Your task to perform on an android device: delete browsing data in the chrome app Image 0: 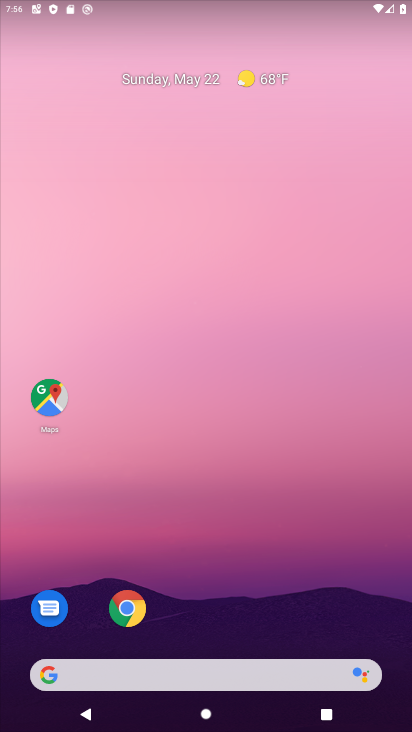
Step 0: click (122, 612)
Your task to perform on an android device: delete browsing data in the chrome app Image 1: 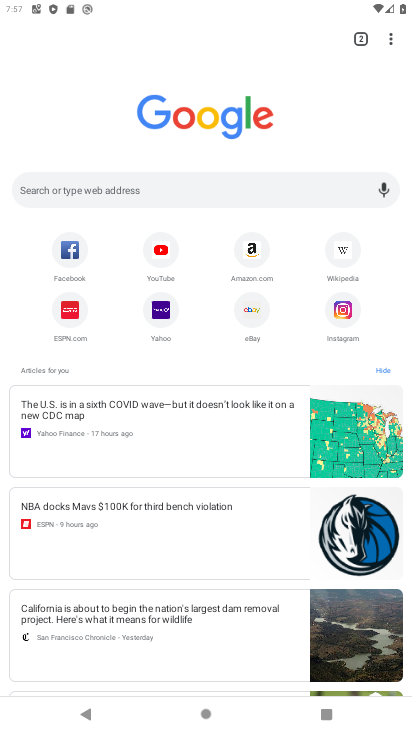
Step 1: click (390, 41)
Your task to perform on an android device: delete browsing data in the chrome app Image 2: 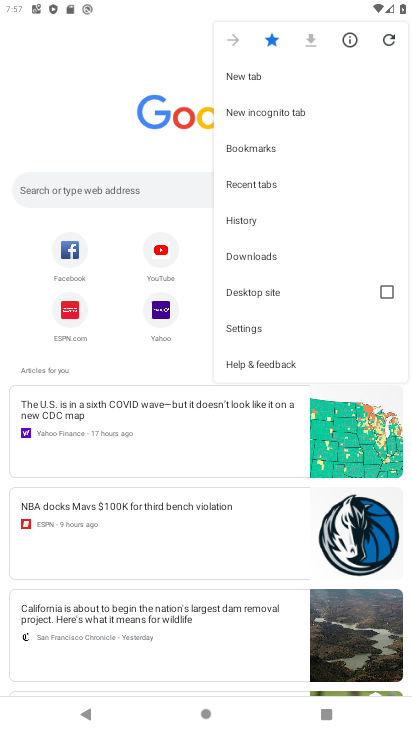
Step 2: click (245, 220)
Your task to perform on an android device: delete browsing data in the chrome app Image 3: 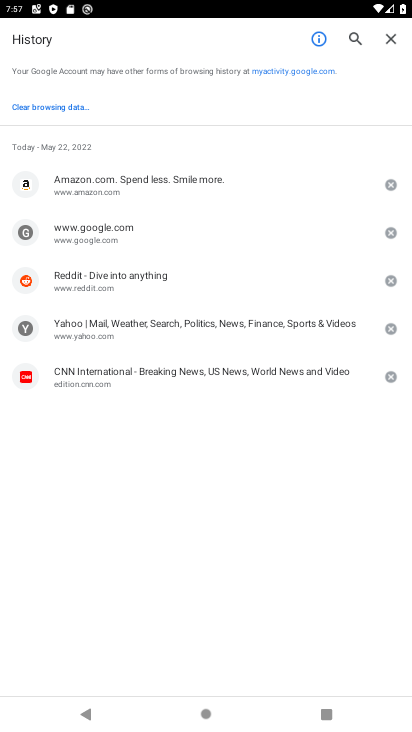
Step 3: click (54, 101)
Your task to perform on an android device: delete browsing data in the chrome app Image 4: 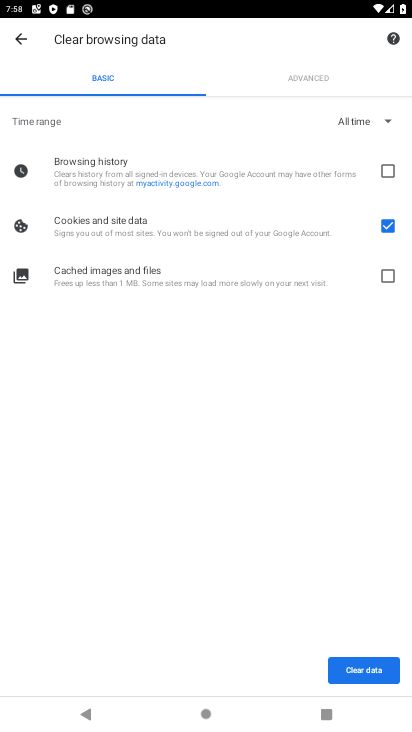
Step 4: click (106, 162)
Your task to perform on an android device: delete browsing data in the chrome app Image 5: 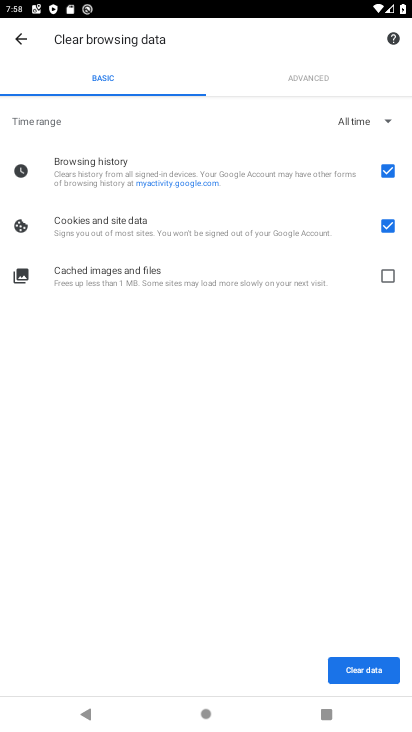
Step 5: click (383, 231)
Your task to perform on an android device: delete browsing data in the chrome app Image 6: 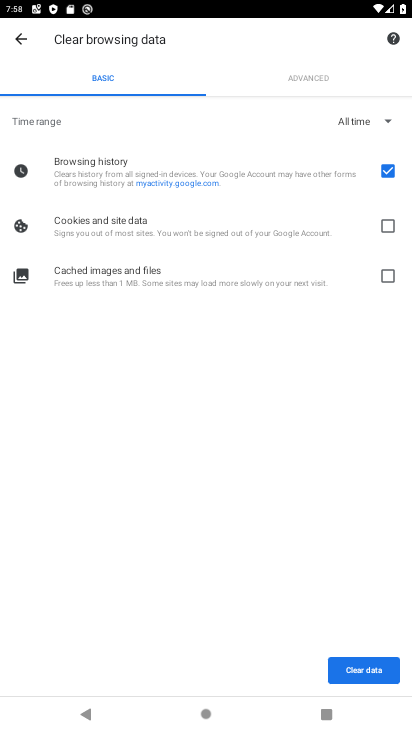
Step 6: click (364, 675)
Your task to perform on an android device: delete browsing data in the chrome app Image 7: 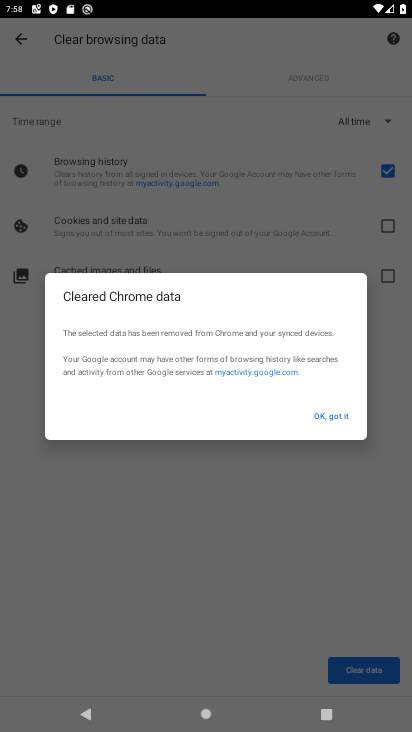
Step 7: click (332, 415)
Your task to perform on an android device: delete browsing data in the chrome app Image 8: 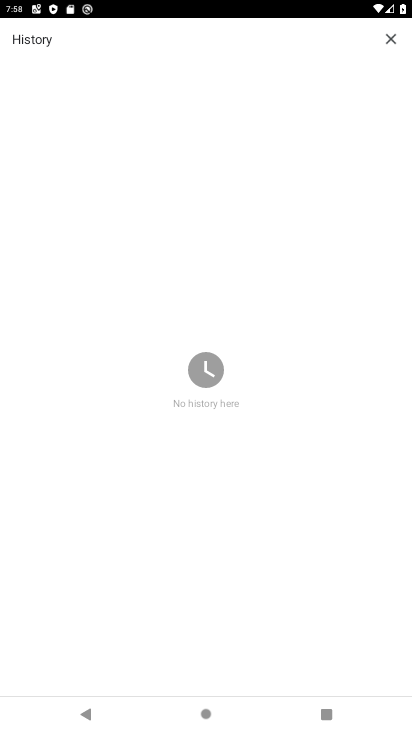
Step 8: task complete